Your task to perform on an android device: Go to notification settings Image 0: 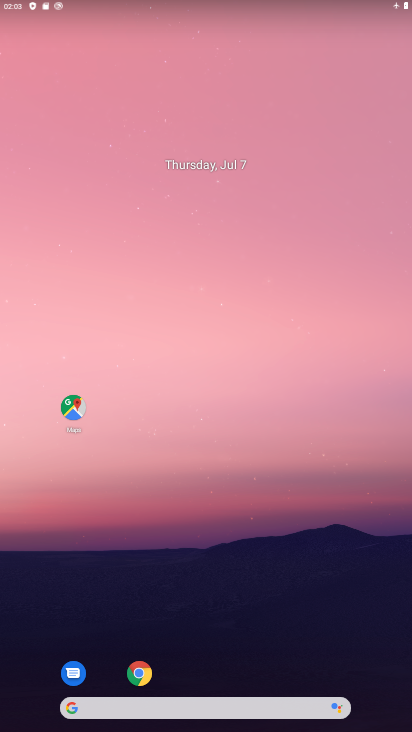
Step 0: drag from (217, 652) to (224, 216)
Your task to perform on an android device: Go to notification settings Image 1: 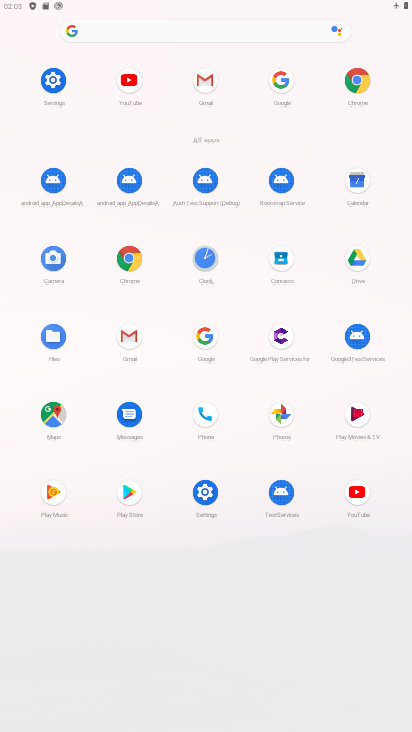
Step 1: click (60, 82)
Your task to perform on an android device: Go to notification settings Image 2: 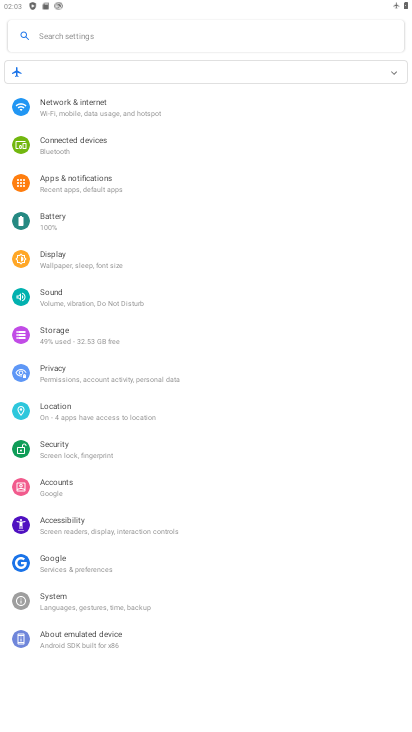
Step 2: click (134, 192)
Your task to perform on an android device: Go to notification settings Image 3: 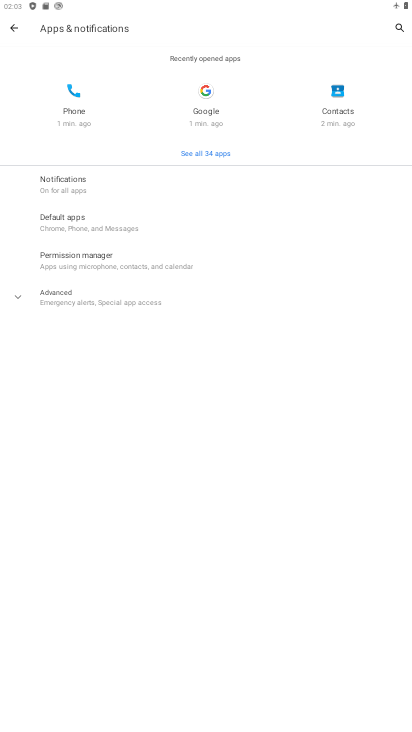
Step 3: click (73, 188)
Your task to perform on an android device: Go to notification settings Image 4: 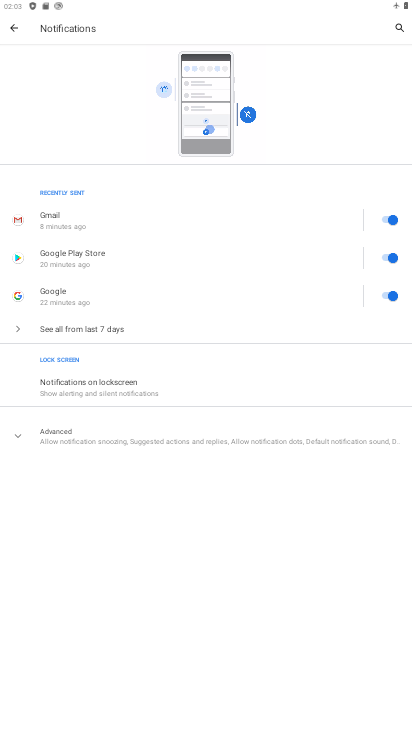
Step 4: task complete